Your task to perform on an android device: open a new tab in the chrome app Image 0: 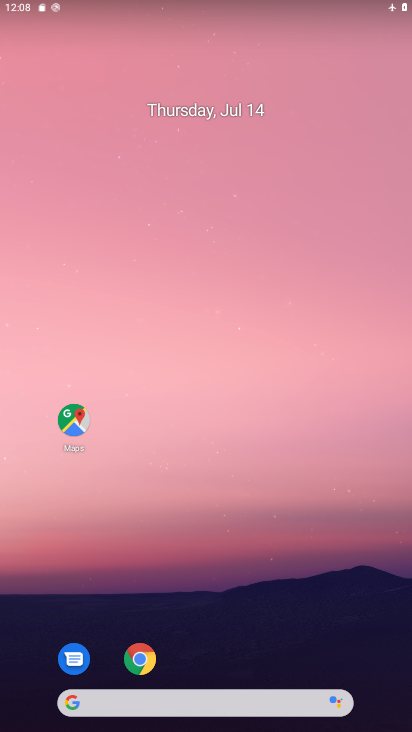
Step 0: drag from (316, 617) to (221, 53)
Your task to perform on an android device: open a new tab in the chrome app Image 1: 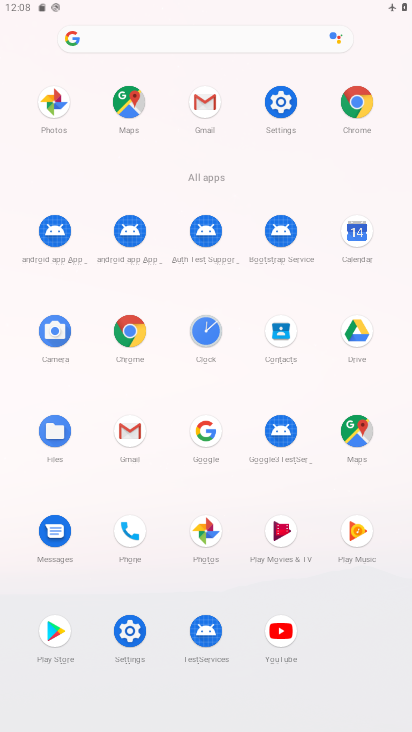
Step 1: click (355, 98)
Your task to perform on an android device: open a new tab in the chrome app Image 2: 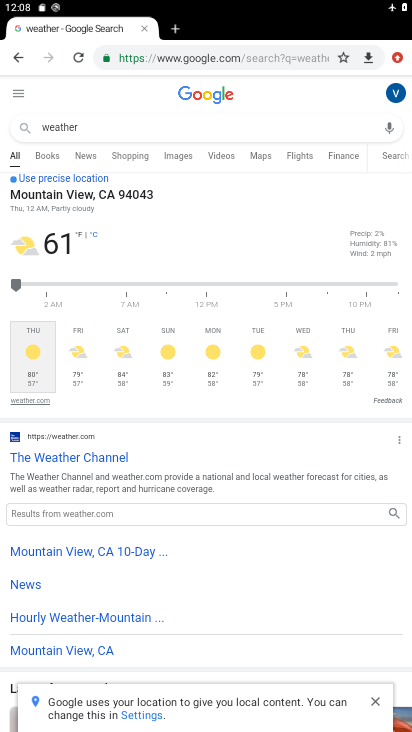
Step 2: click (175, 21)
Your task to perform on an android device: open a new tab in the chrome app Image 3: 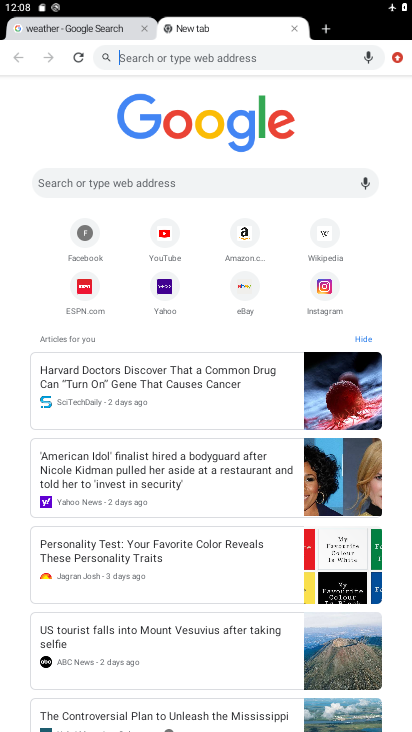
Step 3: task complete